Your task to perform on an android device: Open Chrome and go to the settings page Image 0: 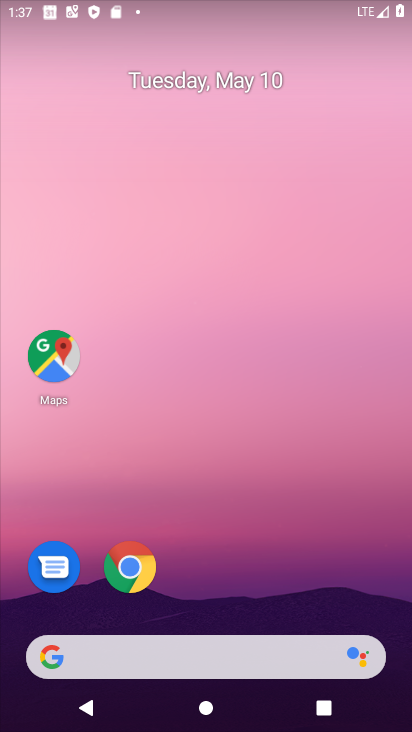
Step 0: drag from (394, 613) to (360, 22)
Your task to perform on an android device: Open Chrome and go to the settings page Image 1: 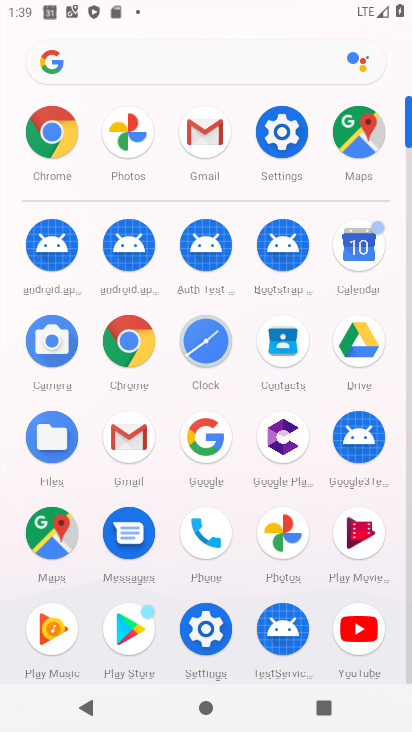
Step 1: click (144, 349)
Your task to perform on an android device: Open Chrome and go to the settings page Image 2: 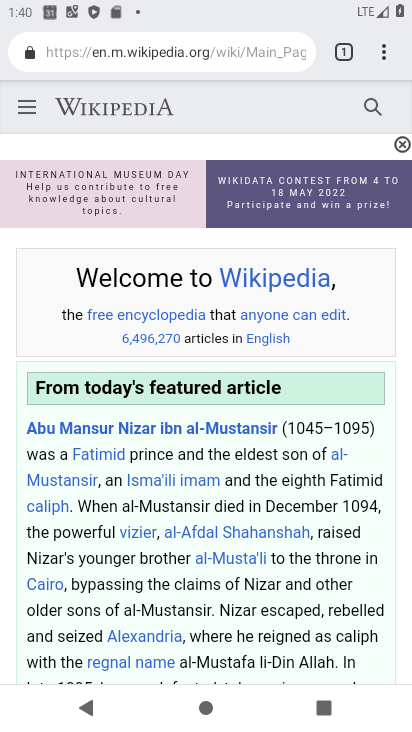
Step 2: press back button
Your task to perform on an android device: Open Chrome and go to the settings page Image 3: 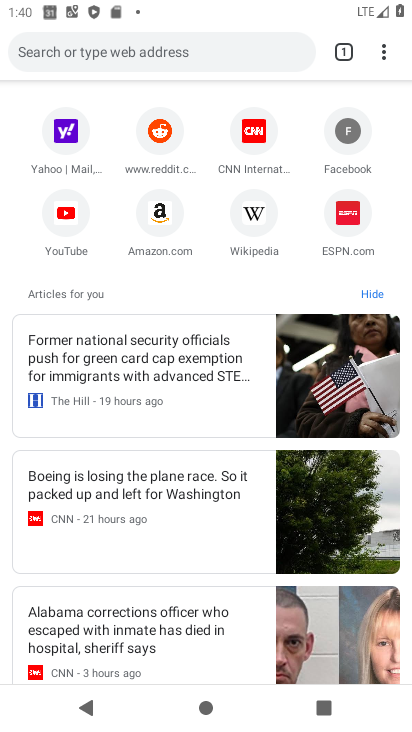
Step 3: click (386, 46)
Your task to perform on an android device: Open Chrome and go to the settings page Image 4: 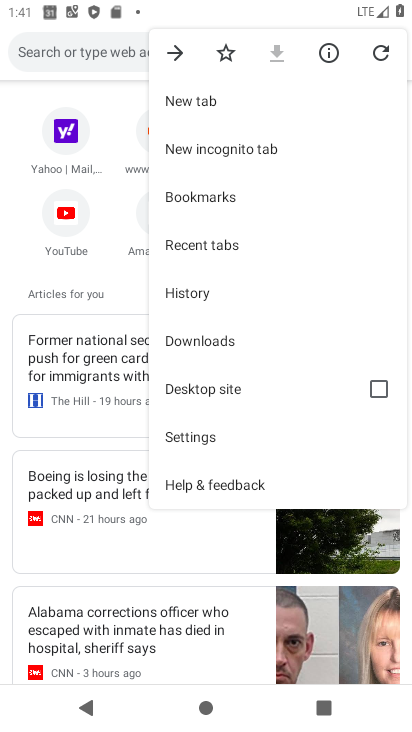
Step 4: click (220, 440)
Your task to perform on an android device: Open Chrome and go to the settings page Image 5: 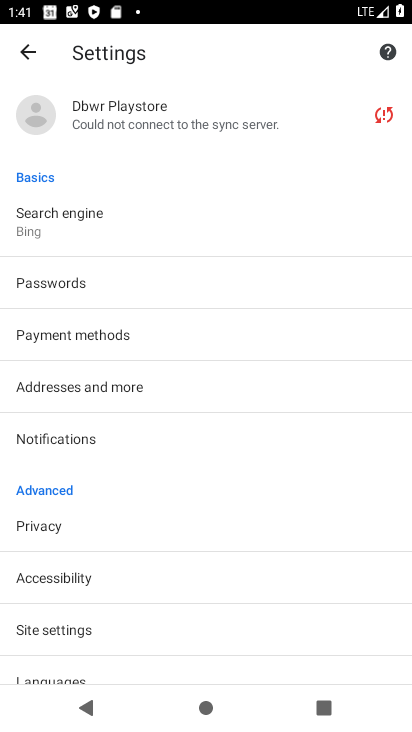
Step 5: task complete